Your task to perform on an android device: Open Google Chrome Image 0: 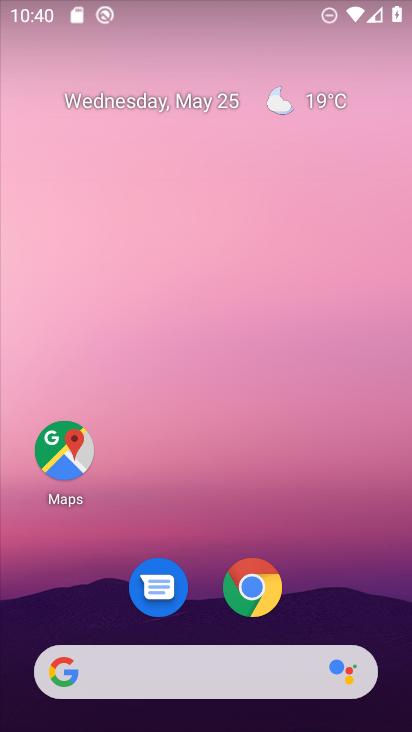
Step 0: click (255, 583)
Your task to perform on an android device: Open Google Chrome Image 1: 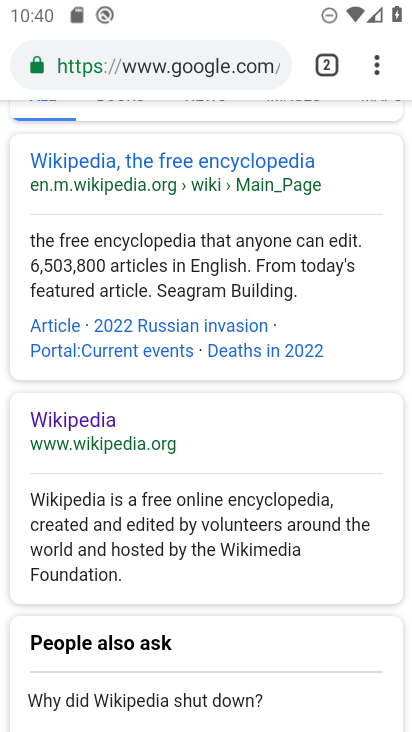
Step 1: task complete